Your task to perform on an android device: refresh tabs in the chrome app Image 0: 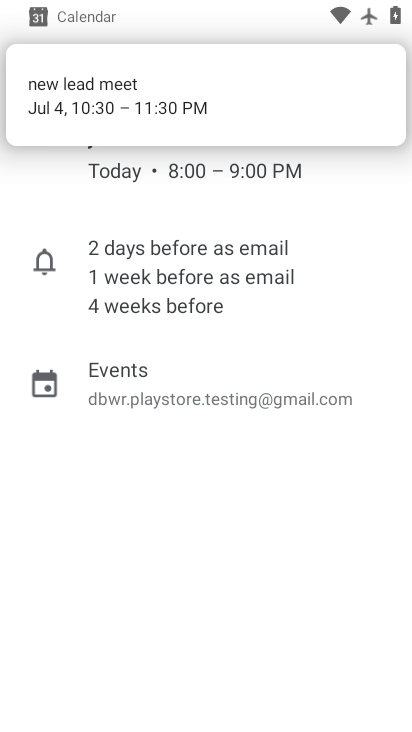
Step 0: press home button
Your task to perform on an android device: refresh tabs in the chrome app Image 1: 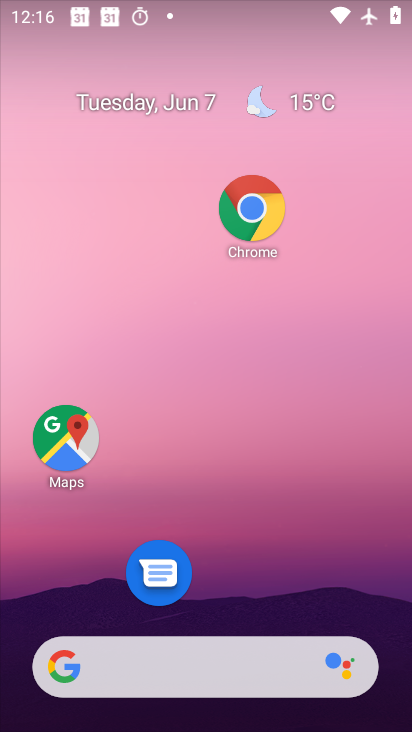
Step 1: click (243, 227)
Your task to perform on an android device: refresh tabs in the chrome app Image 2: 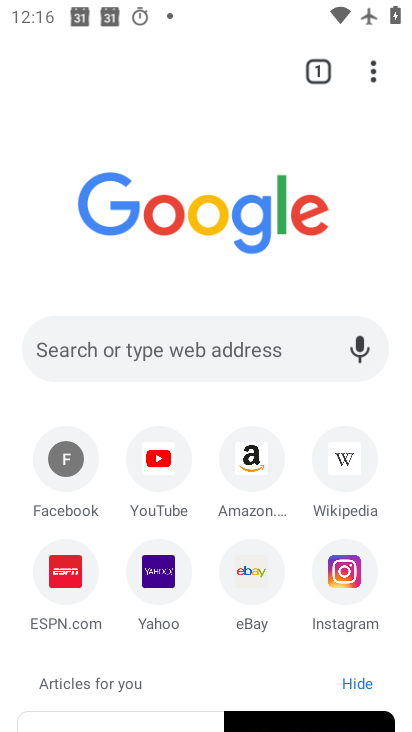
Step 2: click (371, 78)
Your task to perform on an android device: refresh tabs in the chrome app Image 3: 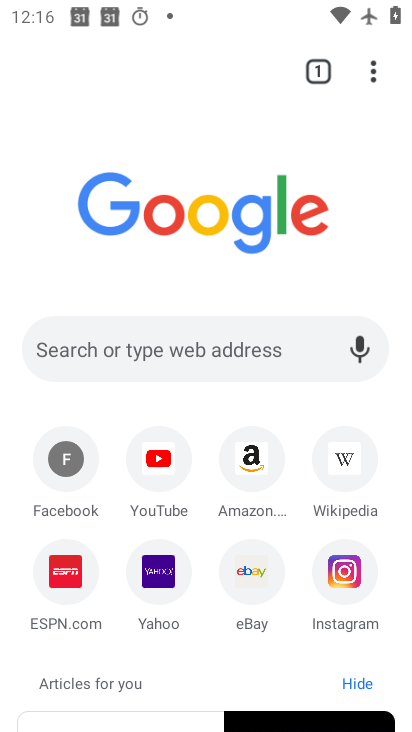
Step 3: click (372, 79)
Your task to perform on an android device: refresh tabs in the chrome app Image 4: 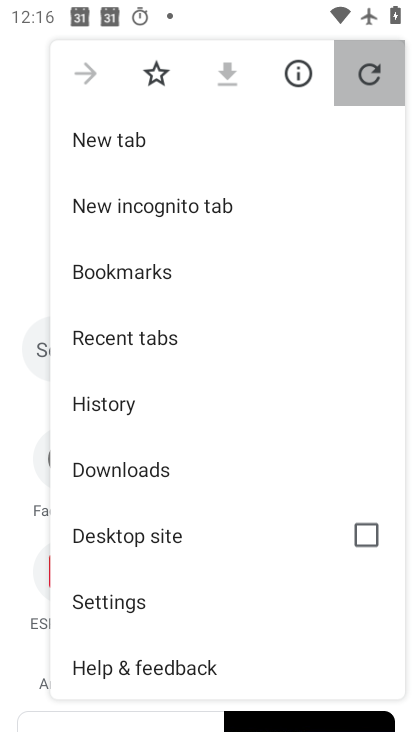
Step 4: click (372, 79)
Your task to perform on an android device: refresh tabs in the chrome app Image 5: 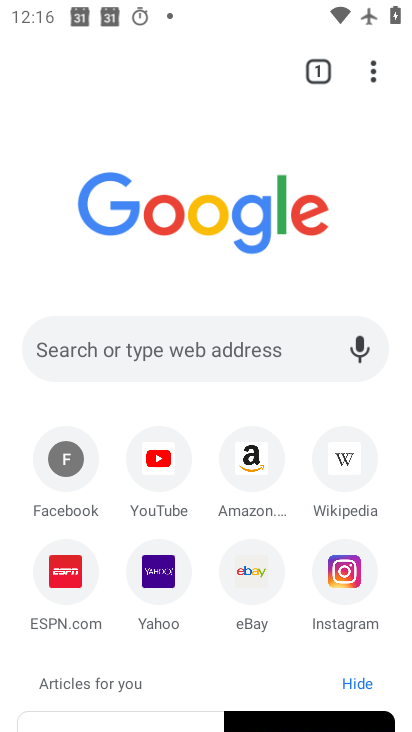
Step 5: click (372, 79)
Your task to perform on an android device: refresh tabs in the chrome app Image 6: 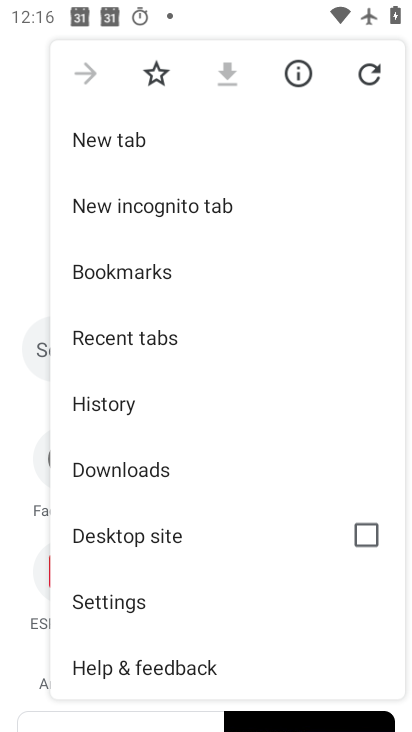
Step 6: task complete